Your task to perform on an android device: refresh tabs in the chrome app Image 0: 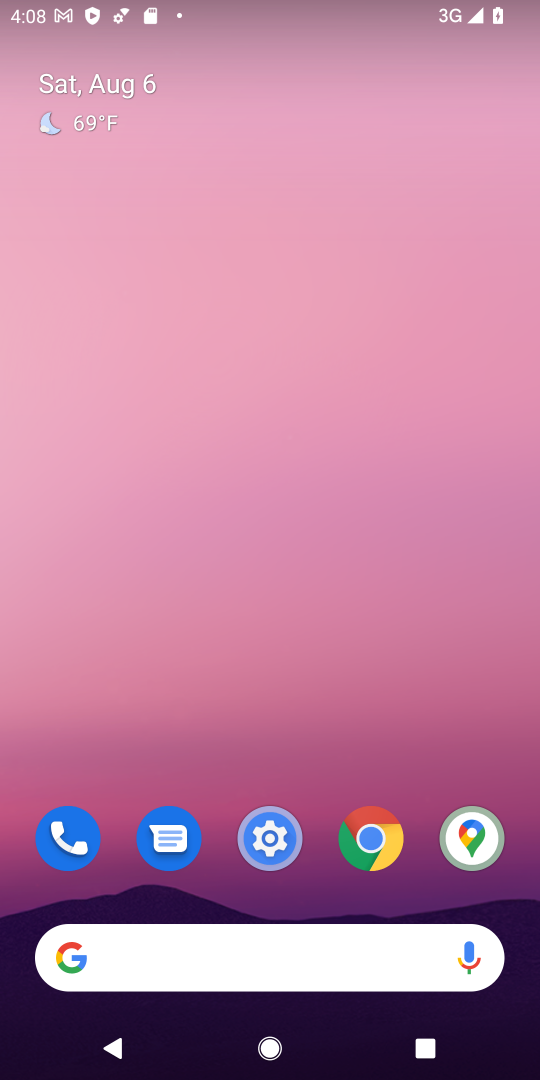
Step 0: click (387, 844)
Your task to perform on an android device: refresh tabs in the chrome app Image 1: 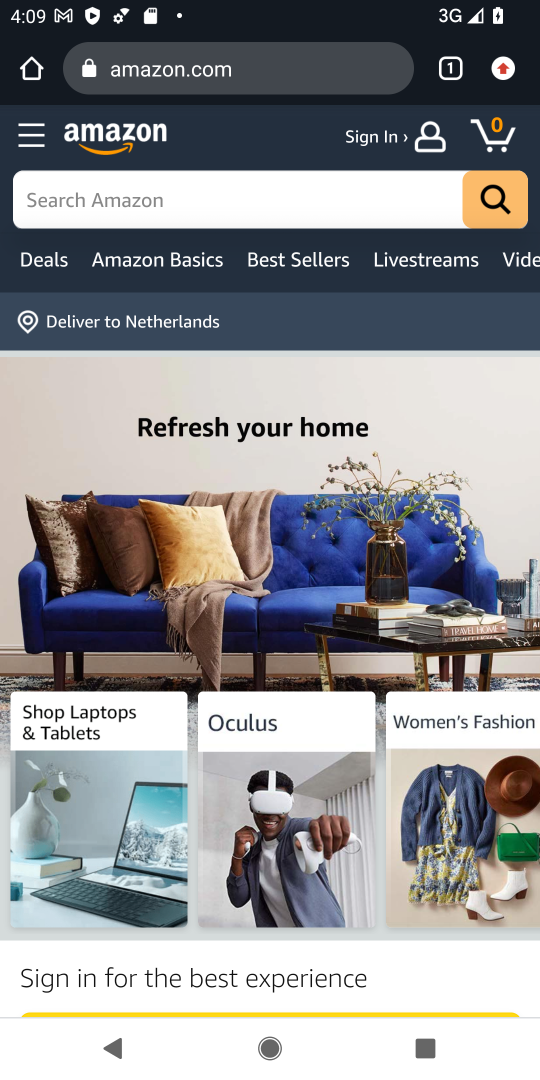
Step 1: click (513, 66)
Your task to perform on an android device: refresh tabs in the chrome app Image 2: 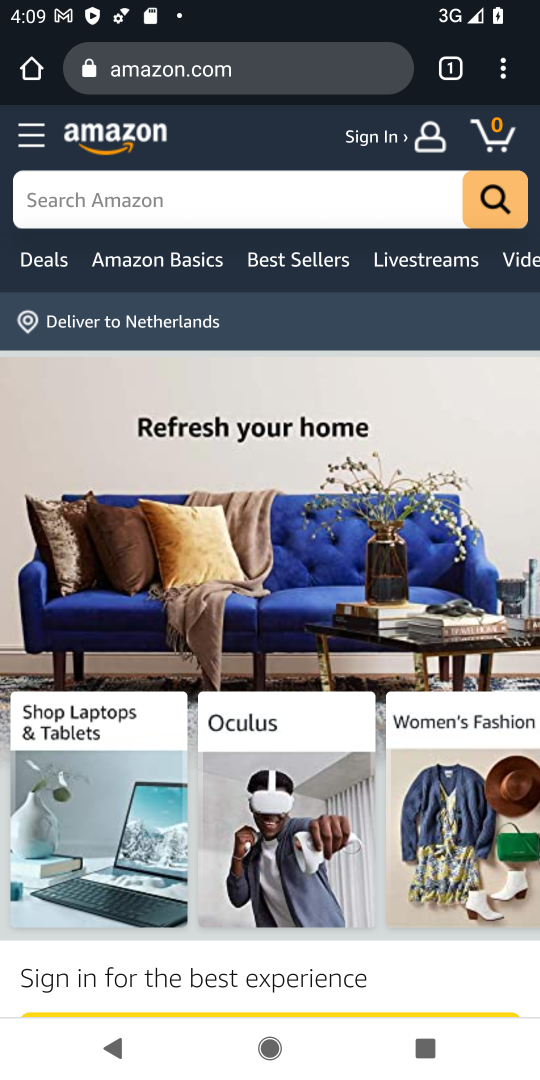
Step 2: click (494, 62)
Your task to perform on an android device: refresh tabs in the chrome app Image 3: 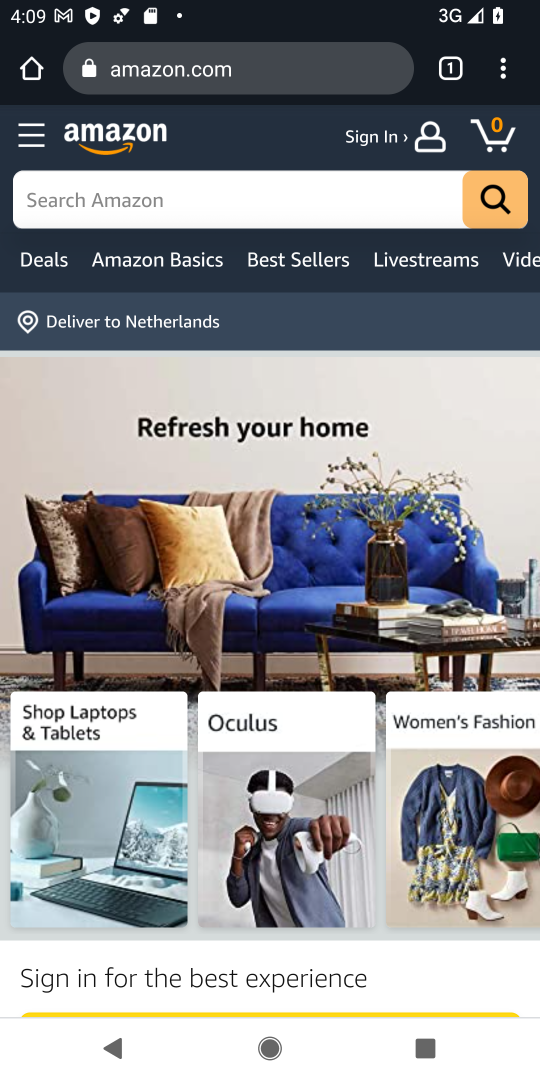
Step 3: task complete